Your task to perform on an android device: Open the web browser Image 0: 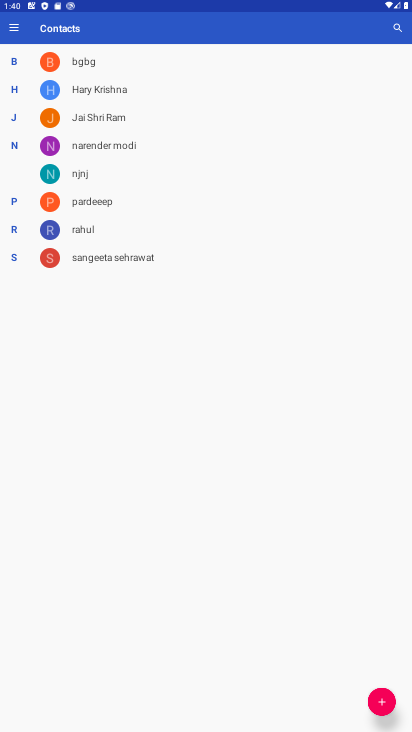
Step 0: press home button
Your task to perform on an android device: Open the web browser Image 1: 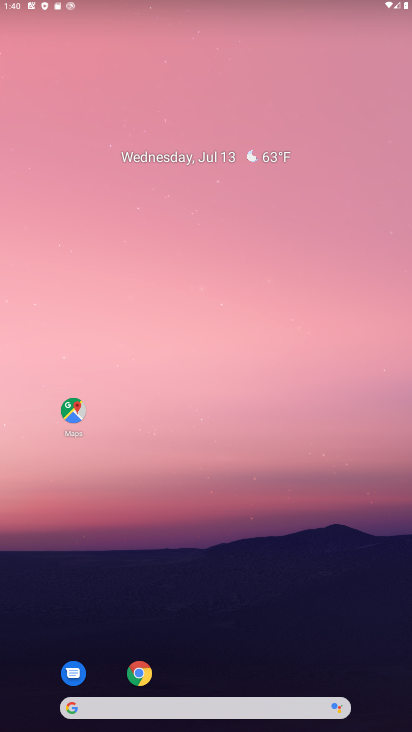
Step 1: drag from (236, 546) to (237, 164)
Your task to perform on an android device: Open the web browser Image 2: 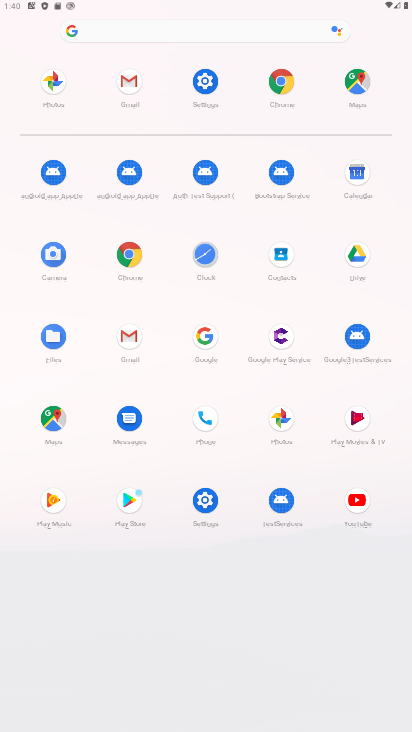
Step 2: click (279, 68)
Your task to perform on an android device: Open the web browser Image 3: 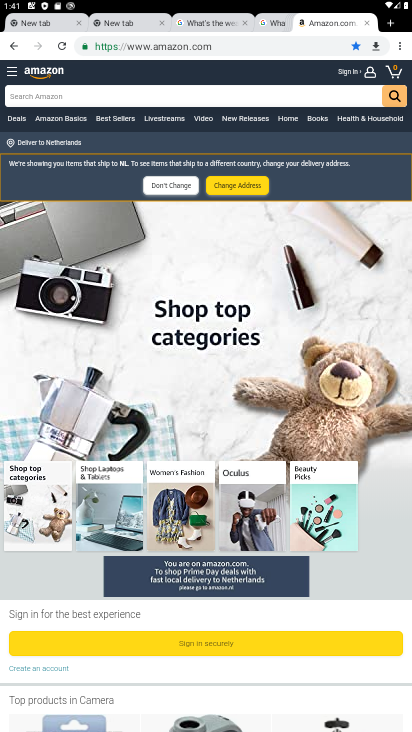
Step 3: task complete